Your task to perform on an android device: Check the weather Image 0: 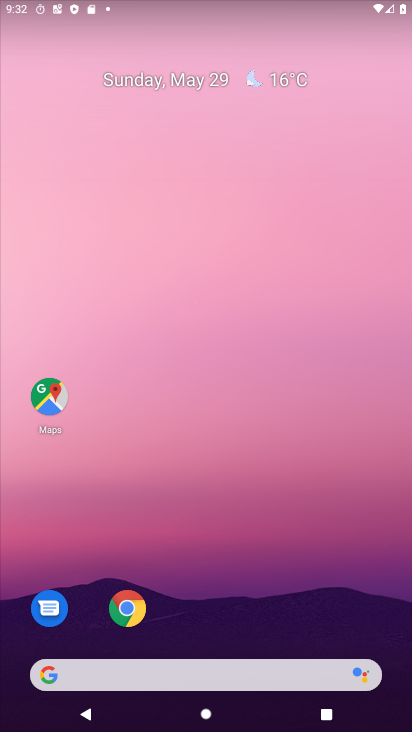
Step 0: click (205, 667)
Your task to perform on an android device: Check the weather Image 1: 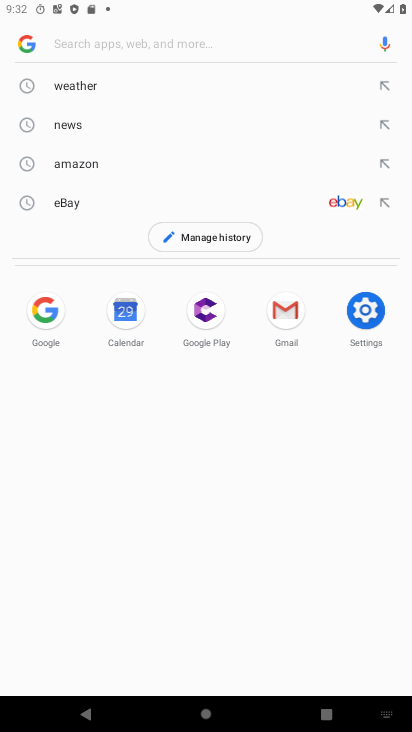
Step 1: click (89, 85)
Your task to perform on an android device: Check the weather Image 2: 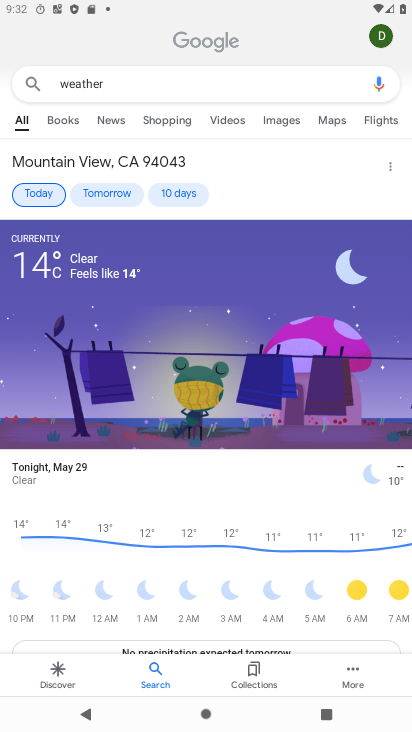
Step 2: task complete